Your task to perform on an android device: check android version Image 0: 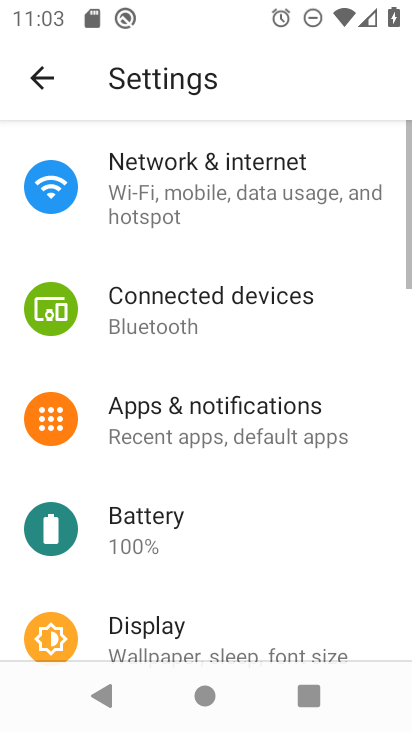
Step 0: press home button
Your task to perform on an android device: check android version Image 1: 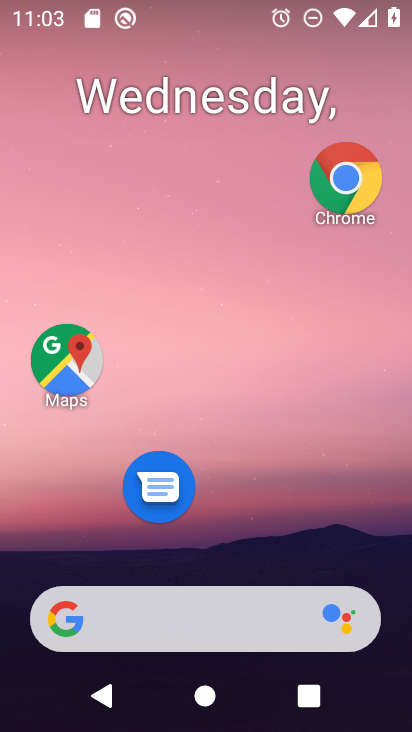
Step 1: drag from (186, 571) to (310, 10)
Your task to perform on an android device: check android version Image 2: 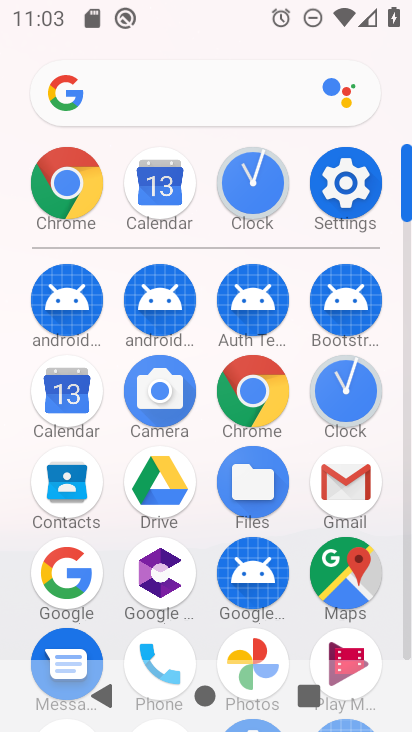
Step 2: click (270, 408)
Your task to perform on an android device: check android version Image 3: 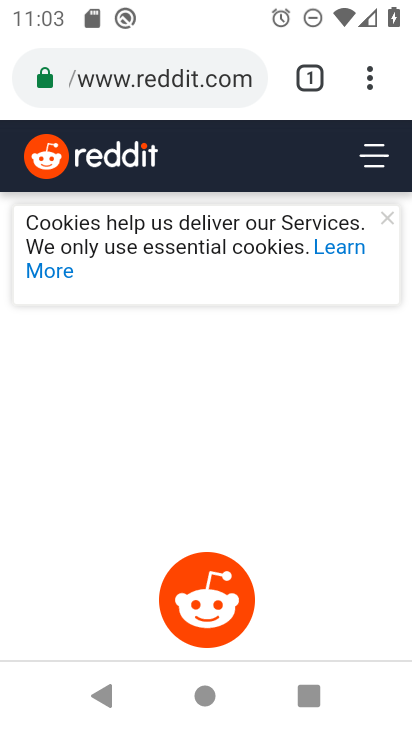
Step 3: press home button
Your task to perform on an android device: check android version Image 4: 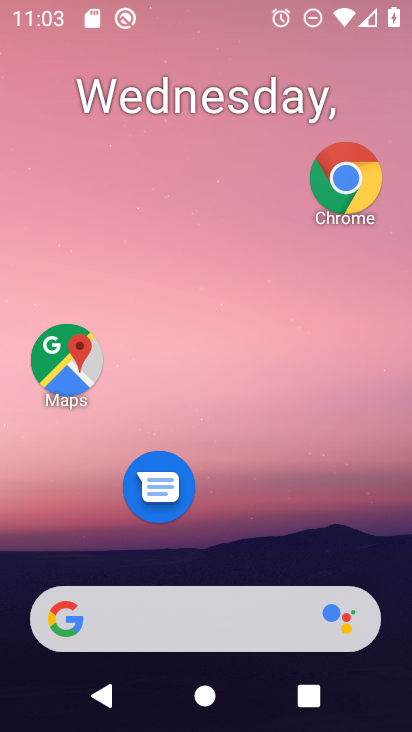
Step 4: drag from (245, 613) to (314, 11)
Your task to perform on an android device: check android version Image 5: 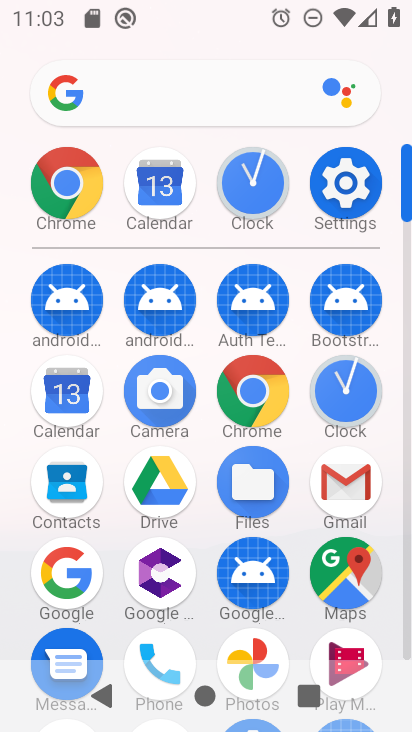
Step 5: click (328, 195)
Your task to perform on an android device: check android version Image 6: 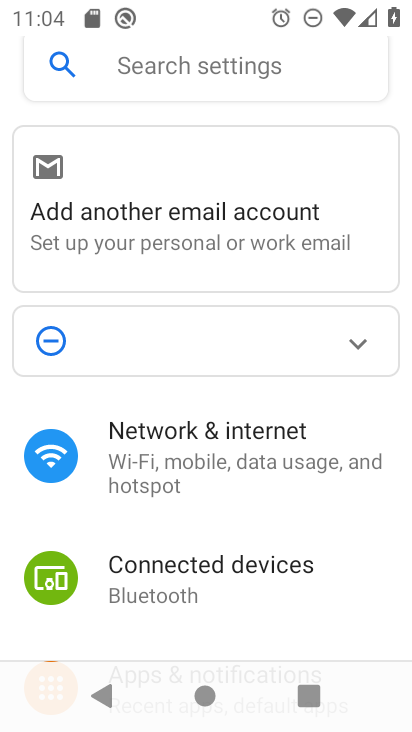
Step 6: drag from (238, 595) to (299, 0)
Your task to perform on an android device: check android version Image 7: 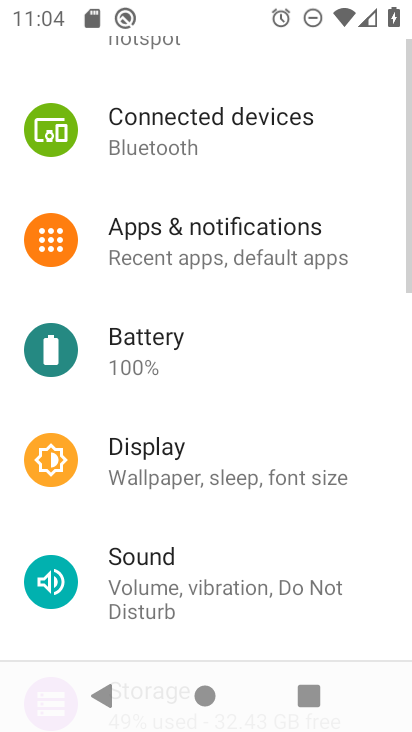
Step 7: drag from (203, 515) to (390, 4)
Your task to perform on an android device: check android version Image 8: 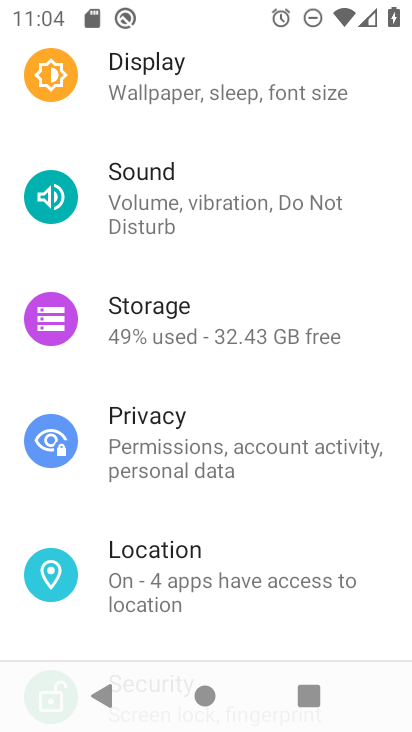
Step 8: drag from (180, 551) to (164, 48)
Your task to perform on an android device: check android version Image 9: 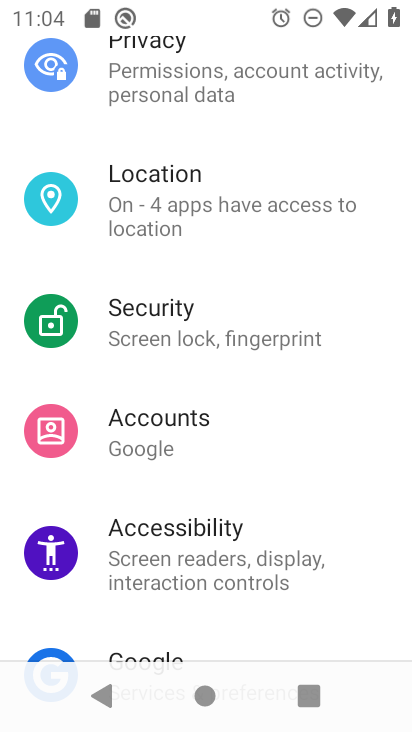
Step 9: drag from (204, 546) to (314, 93)
Your task to perform on an android device: check android version Image 10: 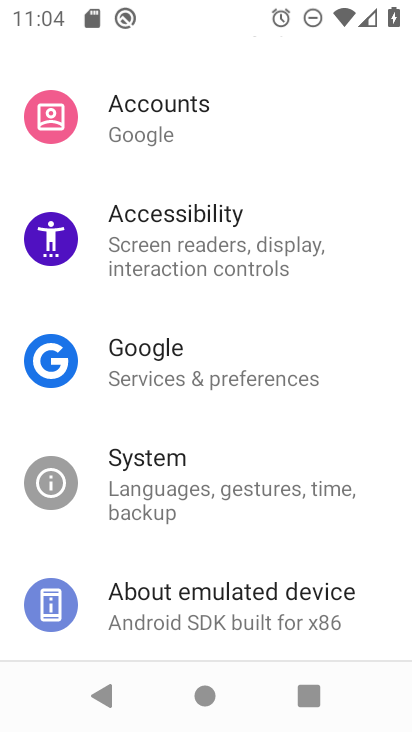
Step 10: drag from (204, 474) to (246, 97)
Your task to perform on an android device: check android version Image 11: 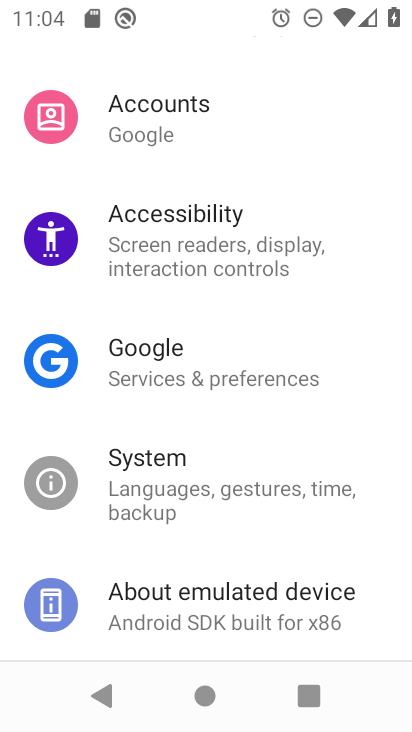
Step 11: click (209, 610)
Your task to perform on an android device: check android version Image 12: 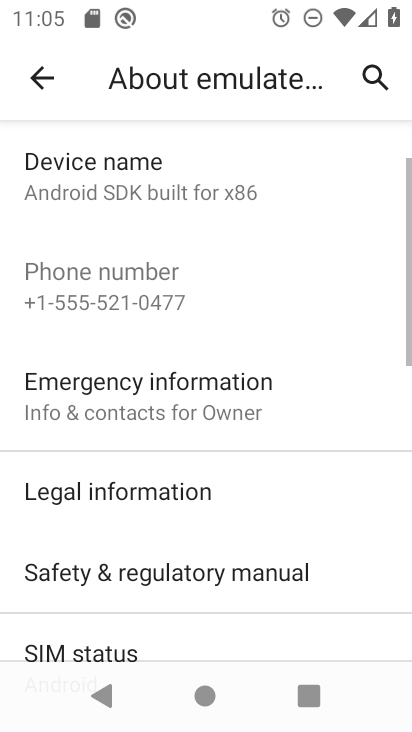
Step 12: drag from (172, 491) to (214, 206)
Your task to perform on an android device: check android version Image 13: 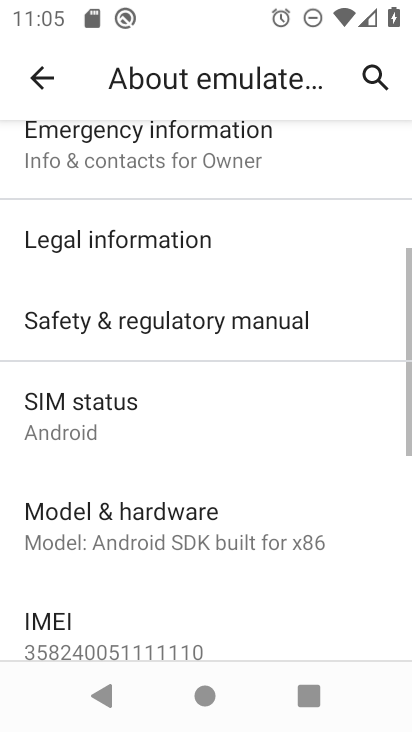
Step 13: drag from (136, 602) to (194, 157)
Your task to perform on an android device: check android version Image 14: 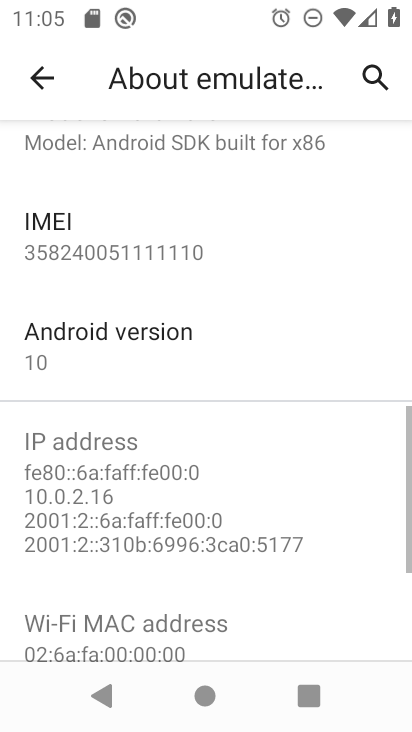
Step 14: click (142, 346)
Your task to perform on an android device: check android version Image 15: 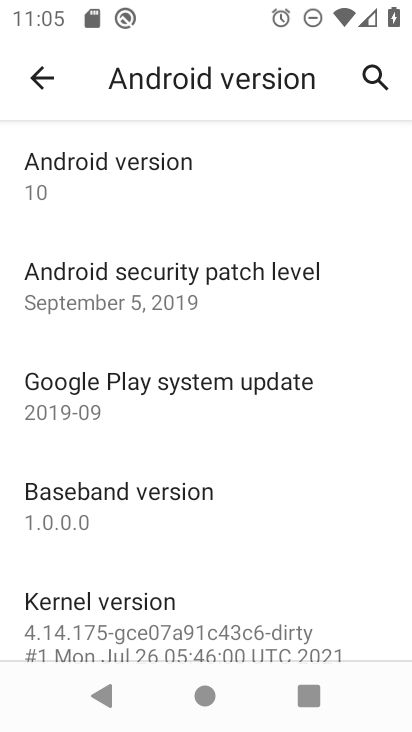
Step 15: click (196, 186)
Your task to perform on an android device: check android version Image 16: 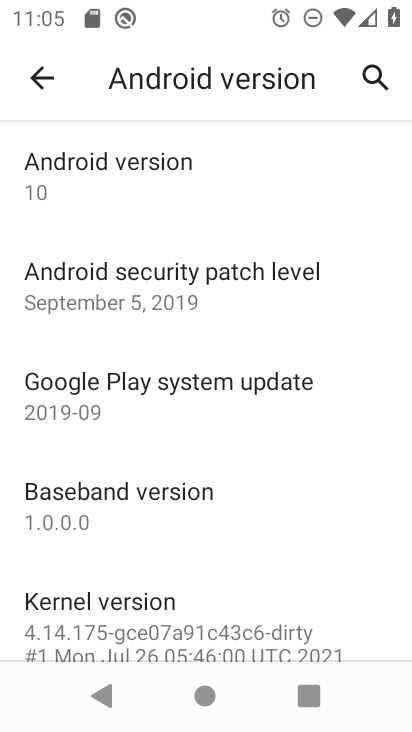
Step 16: task complete